Your task to perform on an android device: manage bookmarks in the chrome app Image 0: 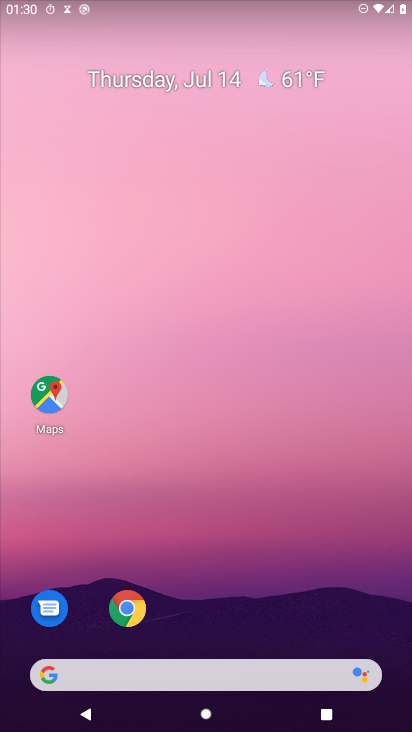
Step 0: press home button
Your task to perform on an android device: manage bookmarks in the chrome app Image 1: 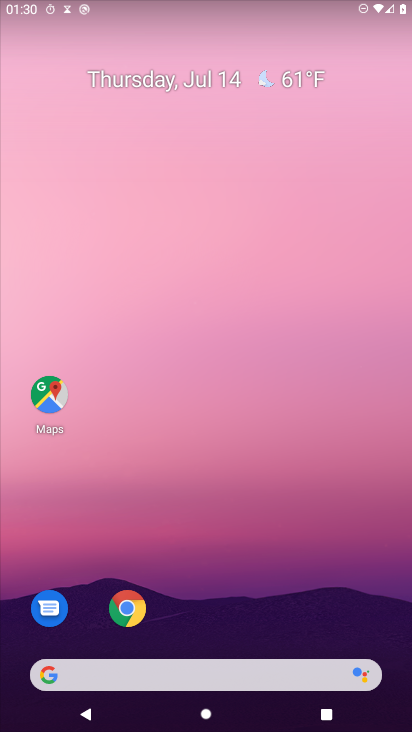
Step 1: click (123, 612)
Your task to perform on an android device: manage bookmarks in the chrome app Image 2: 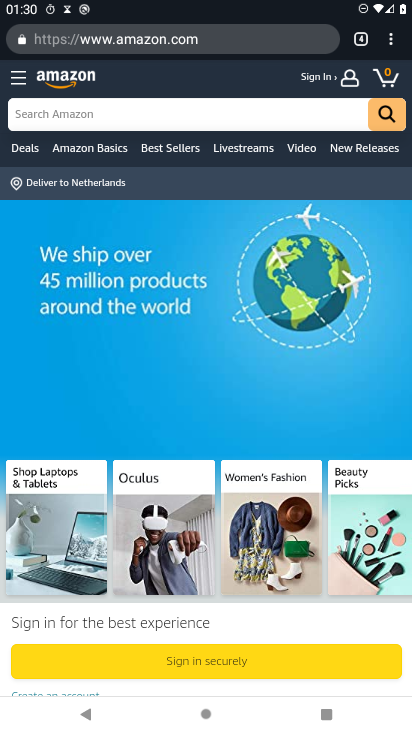
Step 2: task complete